Your task to perform on an android device: toggle pop-ups in chrome Image 0: 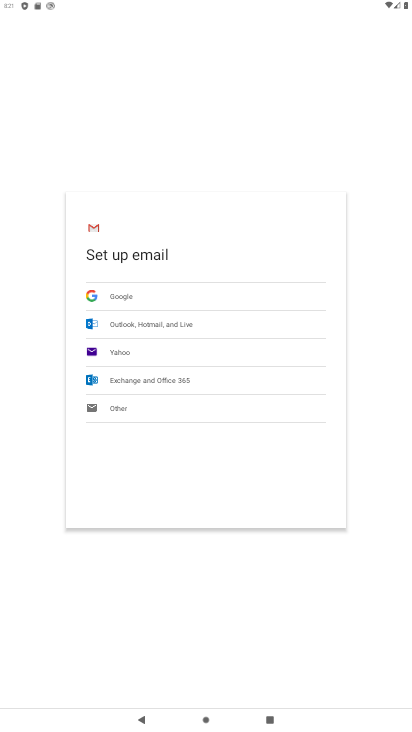
Step 0: press home button
Your task to perform on an android device: toggle pop-ups in chrome Image 1: 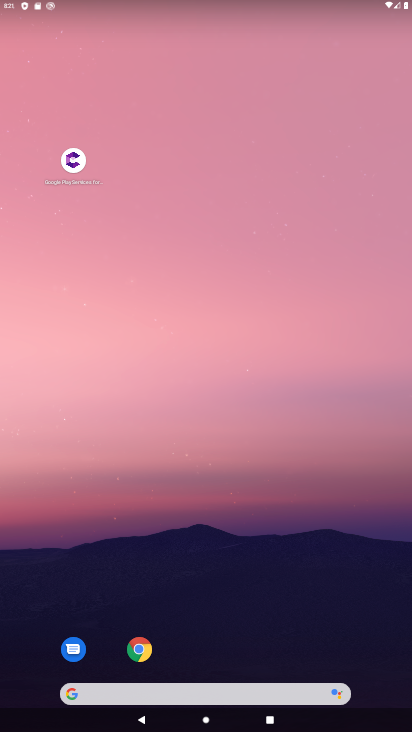
Step 1: click (140, 651)
Your task to perform on an android device: toggle pop-ups in chrome Image 2: 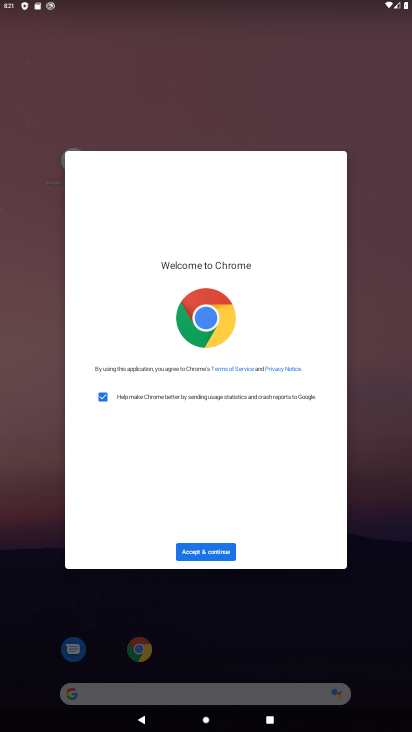
Step 2: click (197, 551)
Your task to perform on an android device: toggle pop-ups in chrome Image 3: 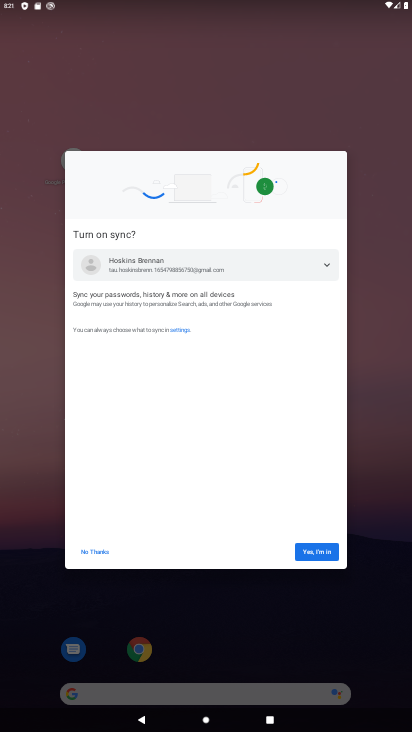
Step 3: click (317, 553)
Your task to perform on an android device: toggle pop-ups in chrome Image 4: 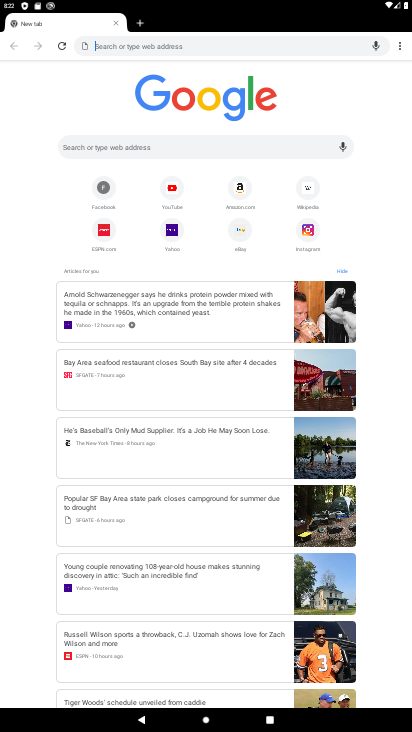
Step 4: click (400, 43)
Your task to perform on an android device: toggle pop-ups in chrome Image 5: 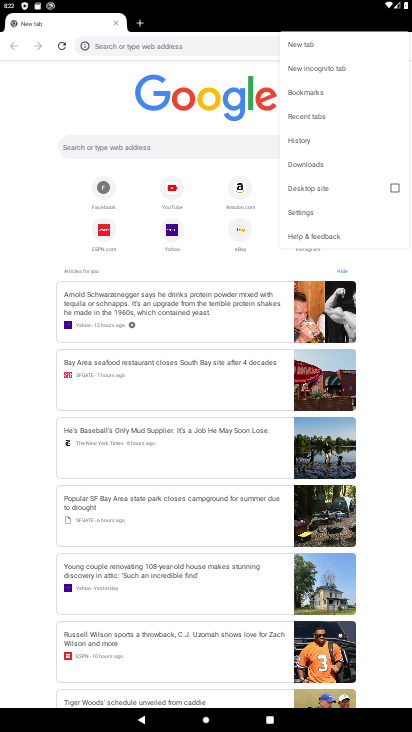
Step 5: click (307, 211)
Your task to perform on an android device: toggle pop-ups in chrome Image 6: 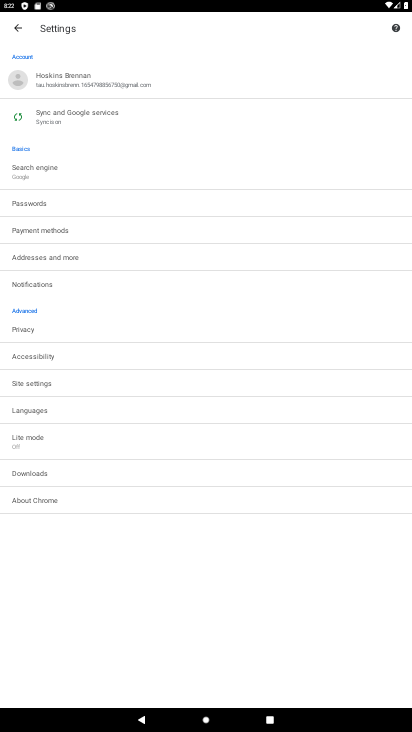
Step 6: click (40, 384)
Your task to perform on an android device: toggle pop-ups in chrome Image 7: 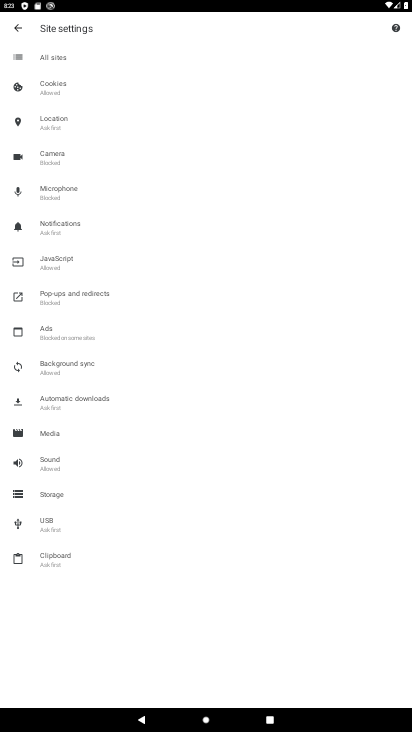
Step 7: click (59, 297)
Your task to perform on an android device: toggle pop-ups in chrome Image 8: 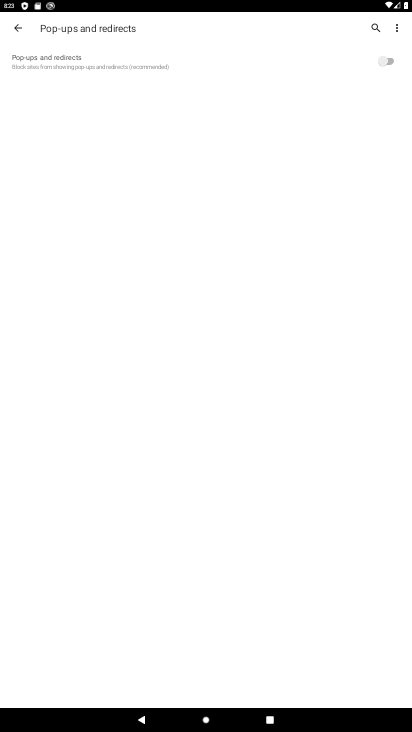
Step 8: click (379, 60)
Your task to perform on an android device: toggle pop-ups in chrome Image 9: 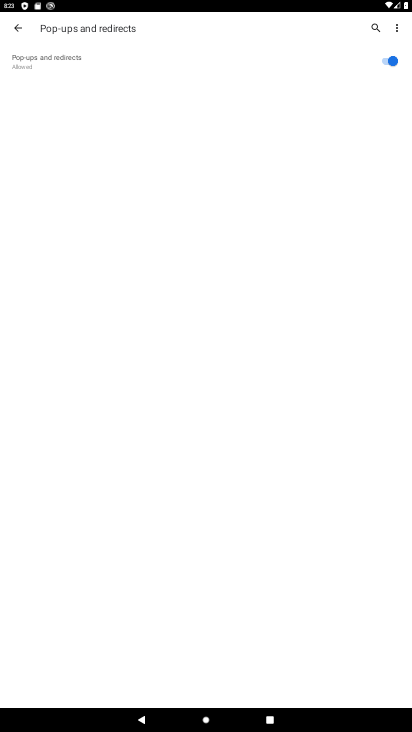
Step 9: task complete